Your task to perform on an android device: empty trash in google photos Image 0: 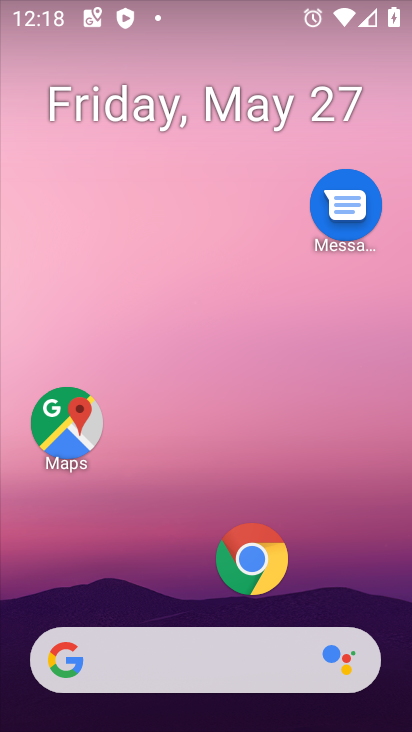
Step 0: drag from (256, 612) to (342, 147)
Your task to perform on an android device: empty trash in google photos Image 1: 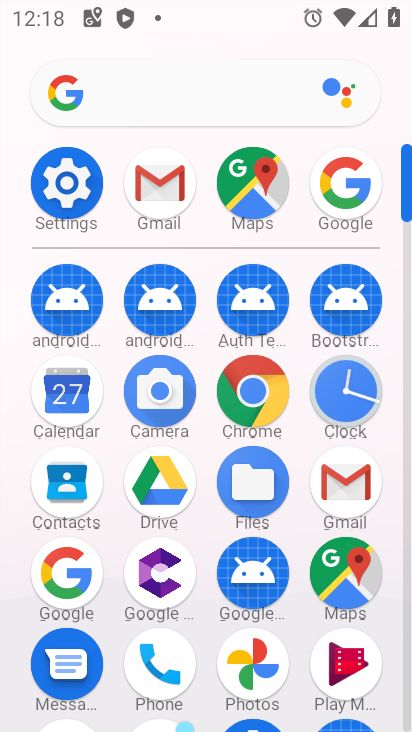
Step 1: click (242, 665)
Your task to perform on an android device: empty trash in google photos Image 2: 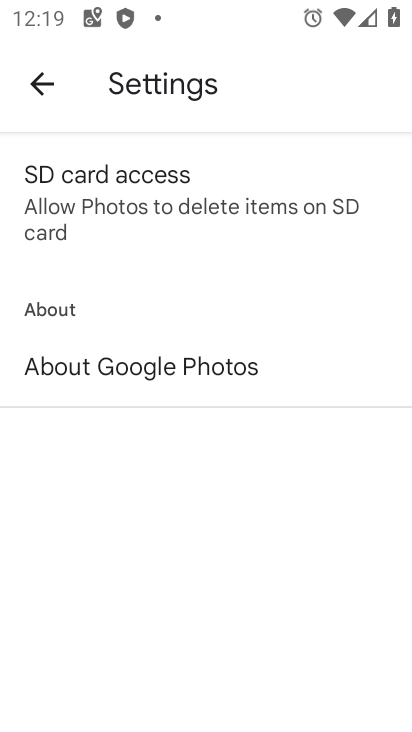
Step 2: click (37, 87)
Your task to perform on an android device: empty trash in google photos Image 3: 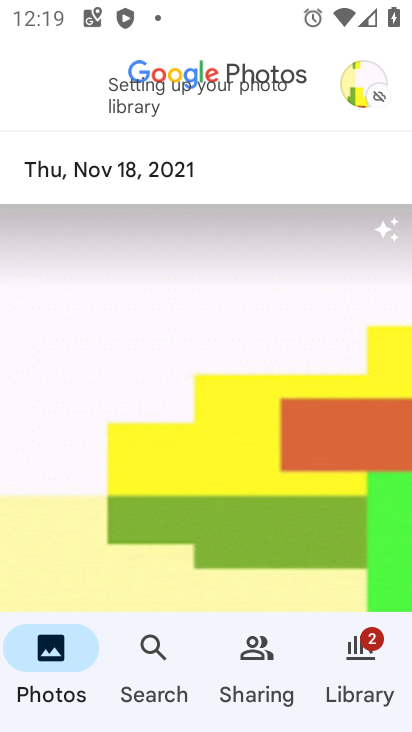
Step 3: click (364, 92)
Your task to perform on an android device: empty trash in google photos Image 4: 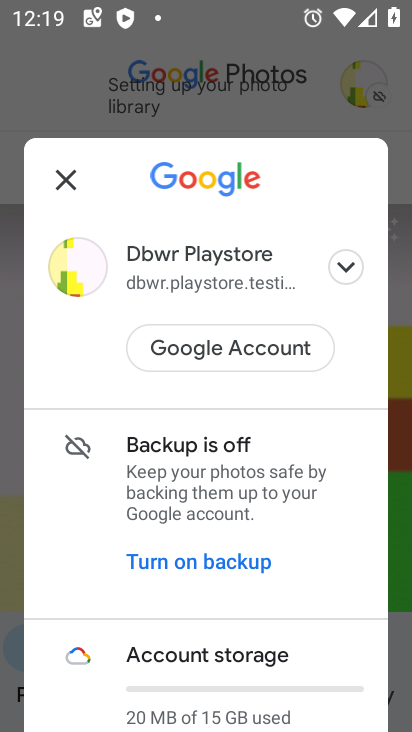
Step 4: task complete